Your task to perform on an android device: uninstall "ZOOM Cloud Meetings" Image 0: 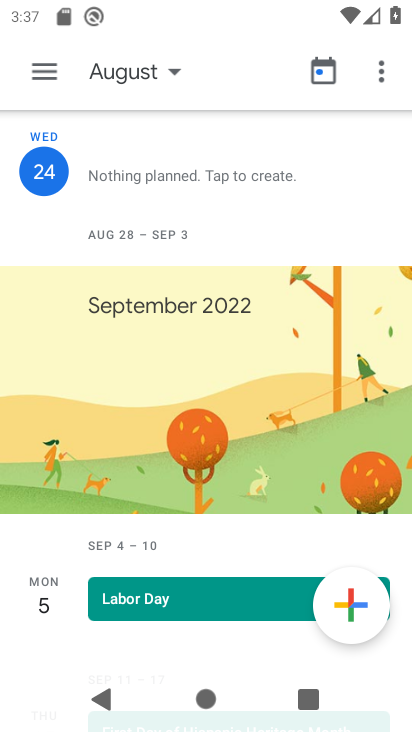
Step 0: press home button
Your task to perform on an android device: uninstall "ZOOM Cloud Meetings" Image 1: 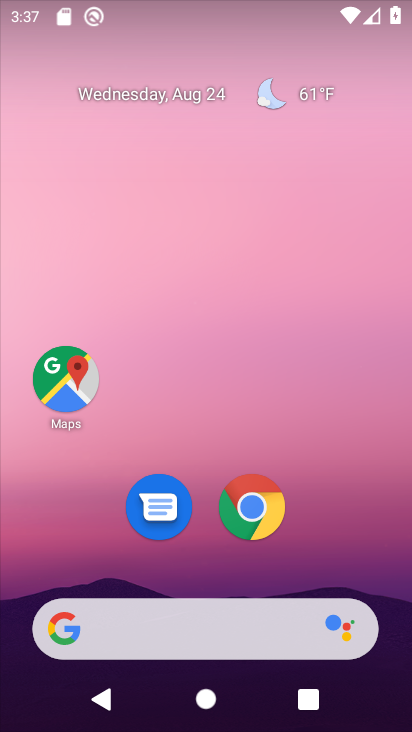
Step 1: drag from (180, 646) to (213, 64)
Your task to perform on an android device: uninstall "ZOOM Cloud Meetings" Image 2: 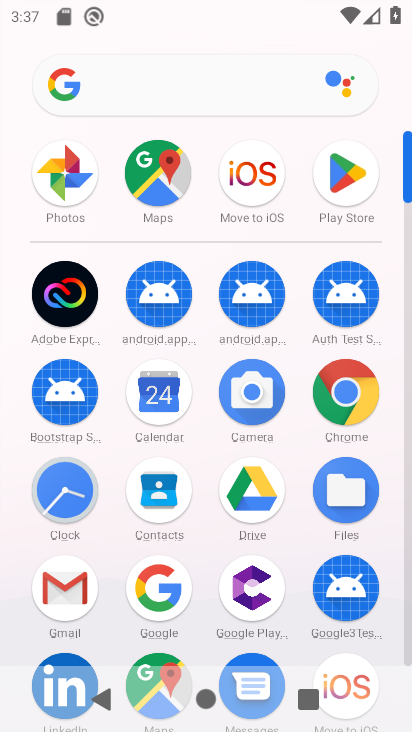
Step 2: click (348, 175)
Your task to perform on an android device: uninstall "ZOOM Cloud Meetings" Image 3: 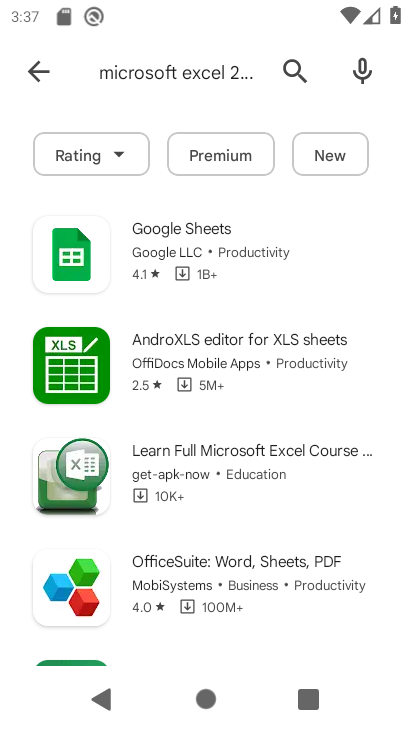
Step 3: press back button
Your task to perform on an android device: uninstall "ZOOM Cloud Meetings" Image 4: 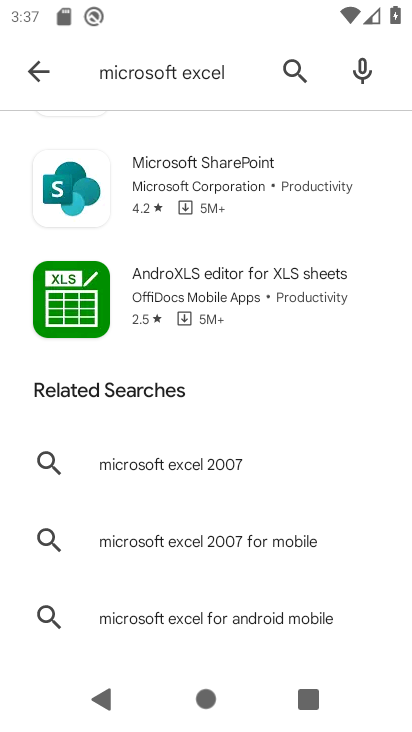
Step 4: press back button
Your task to perform on an android device: uninstall "ZOOM Cloud Meetings" Image 5: 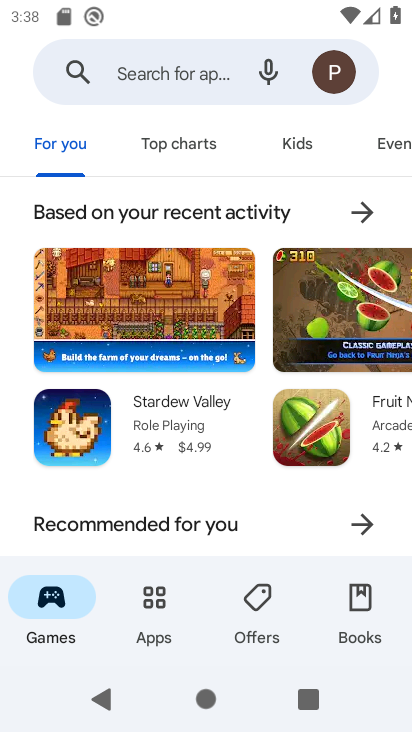
Step 5: click (146, 74)
Your task to perform on an android device: uninstall "ZOOM Cloud Meetings" Image 6: 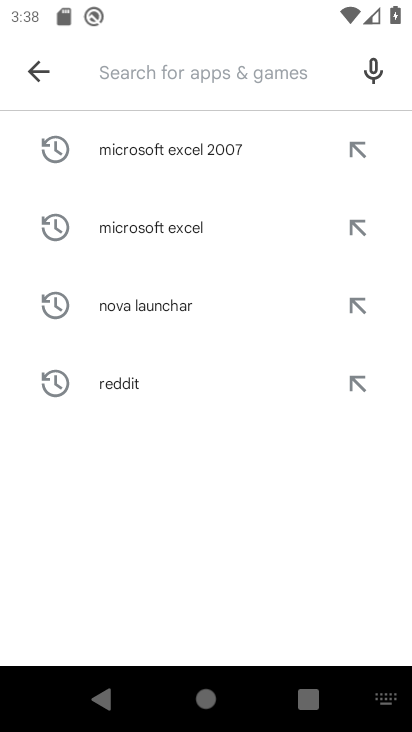
Step 6: type "ZOOM  Cloud Meetings"
Your task to perform on an android device: uninstall "ZOOM Cloud Meetings" Image 7: 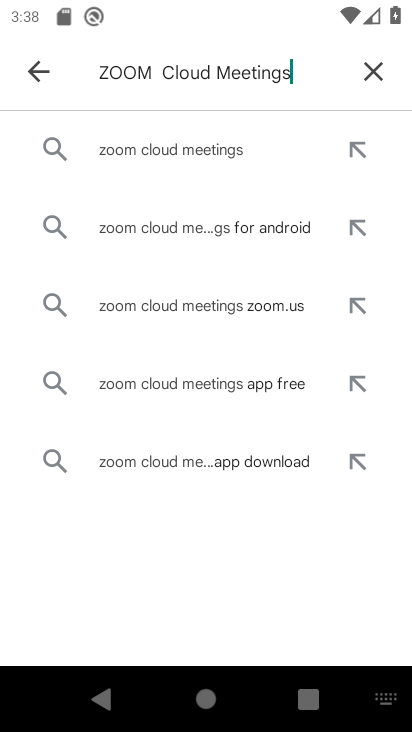
Step 7: click (202, 149)
Your task to perform on an android device: uninstall "ZOOM Cloud Meetings" Image 8: 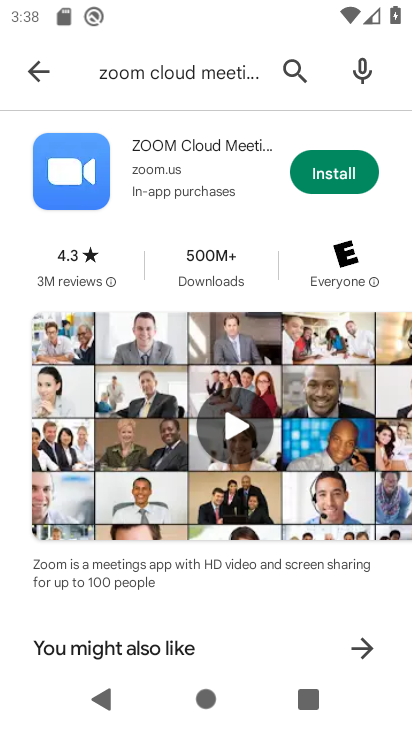
Step 8: task complete